Your task to perform on an android device: find photos in the google photos app Image 0: 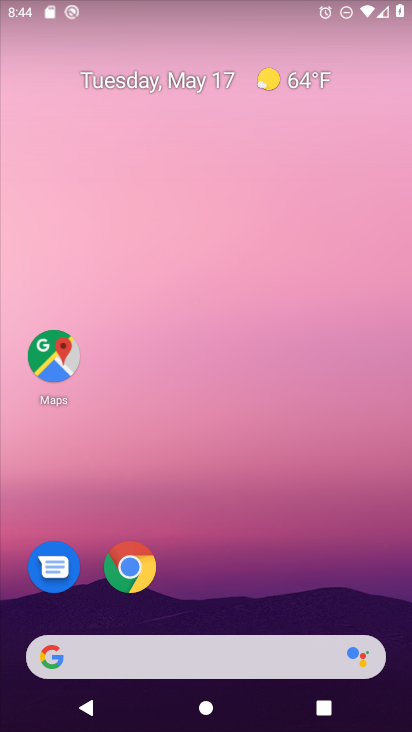
Step 0: drag from (371, 595) to (246, 69)
Your task to perform on an android device: find photos in the google photos app Image 1: 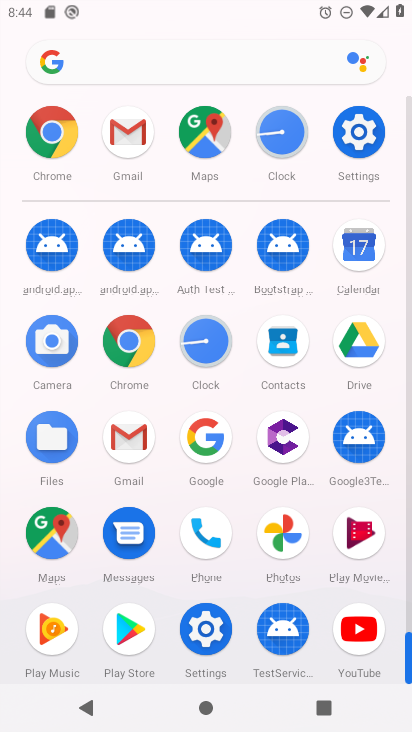
Step 1: click (277, 535)
Your task to perform on an android device: find photos in the google photos app Image 2: 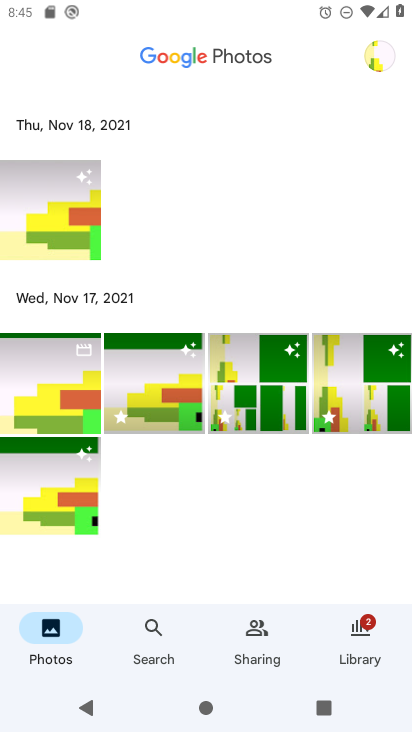
Step 2: task complete